Your task to perform on an android device: uninstall "LinkedIn" Image 0: 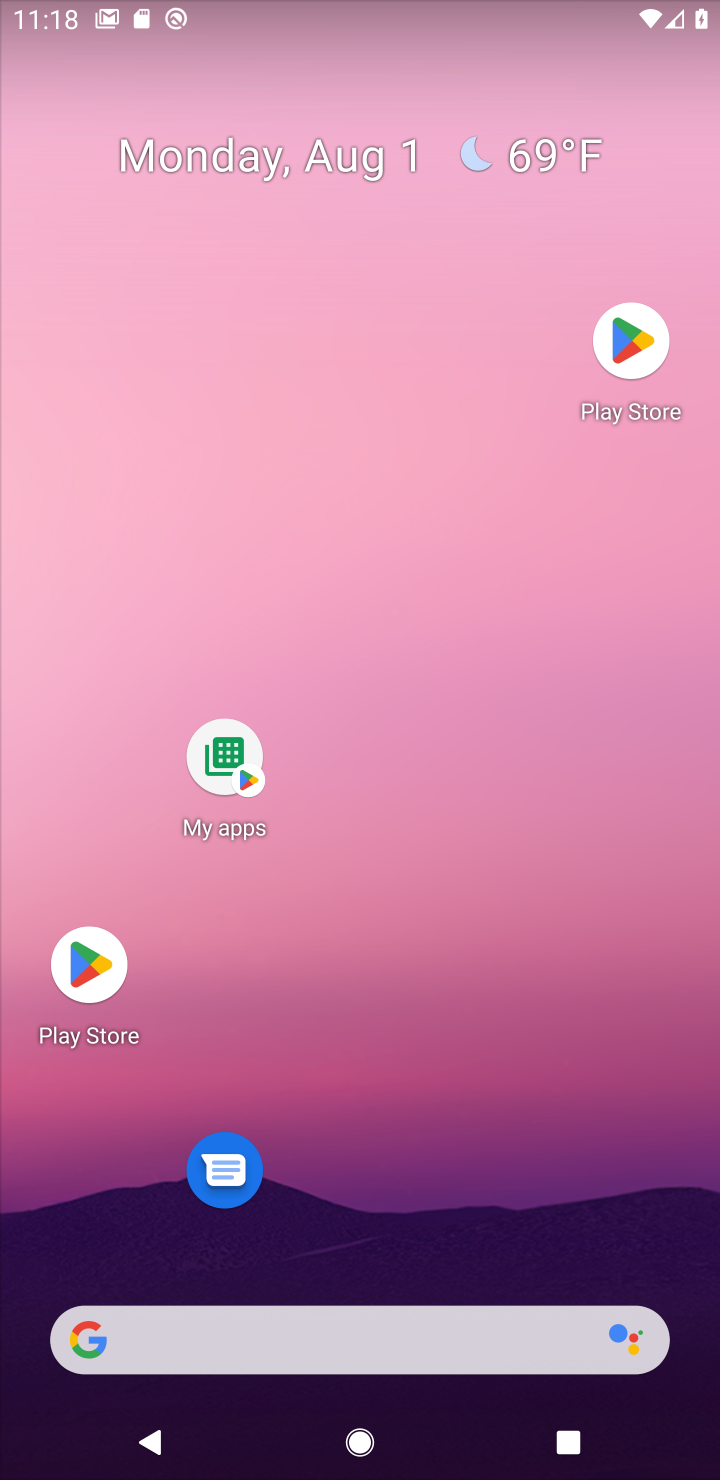
Step 0: drag from (418, 1373) to (445, 469)
Your task to perform on an android device: uninstall "LinkedIn" Image 1: 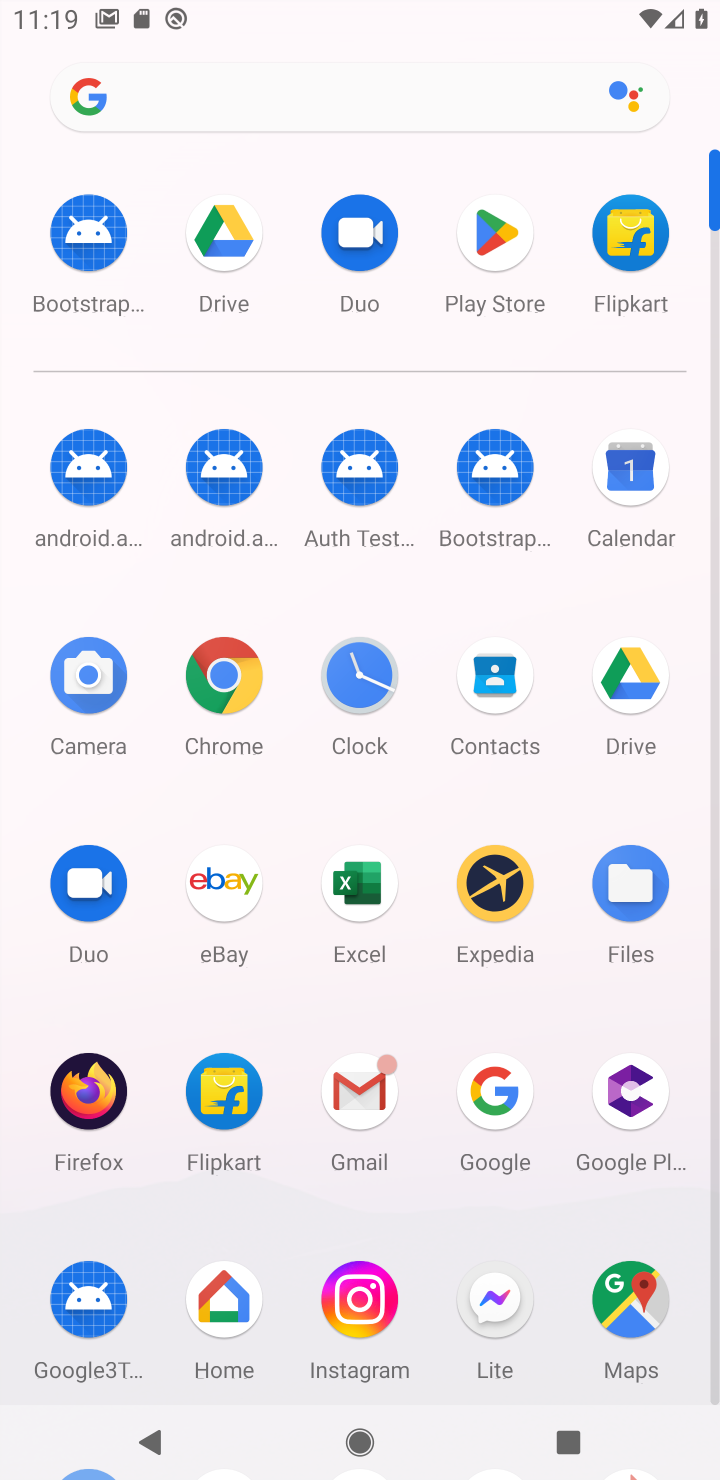
Step 1: click (493, 232)
Your task to perform on an android device: uninstall "LinkedIn" Image 2: 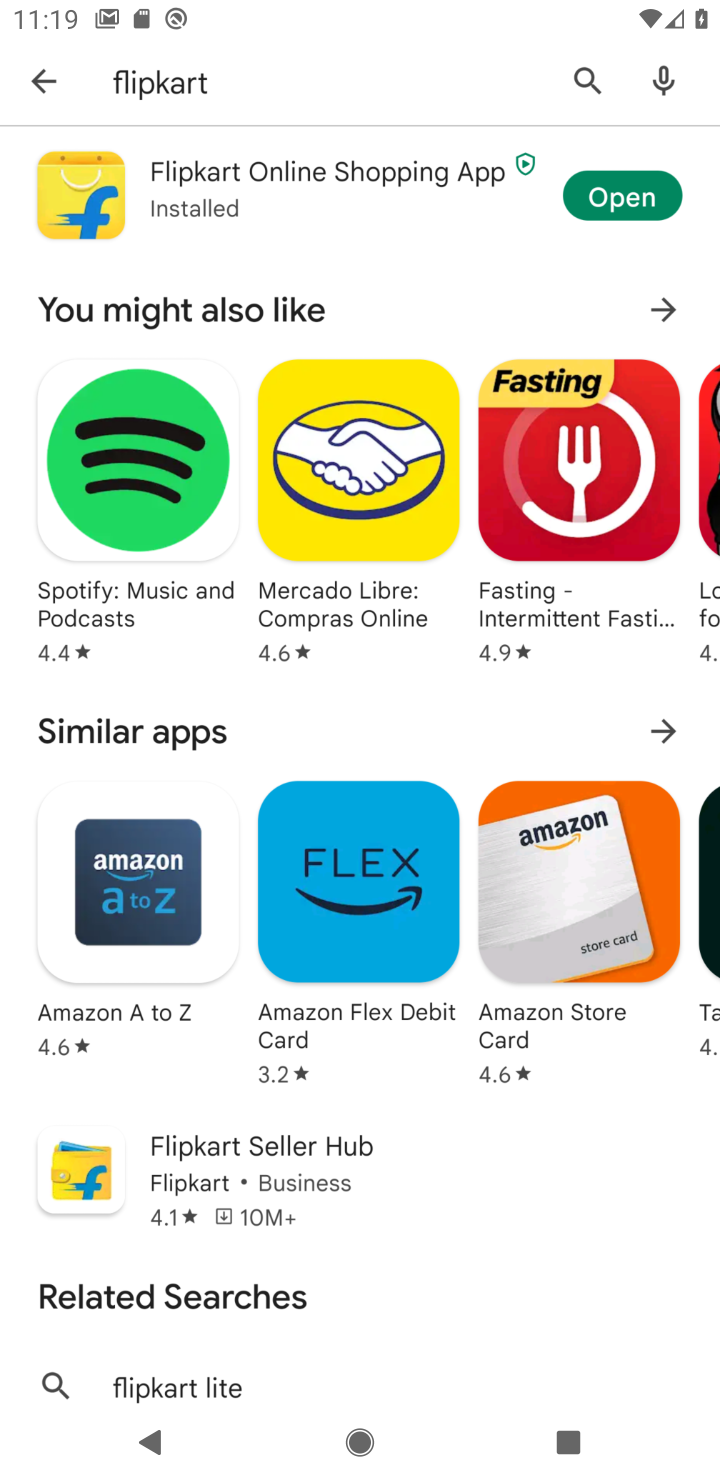
Step 2: click (528, 234)
Your task to perform on an android device: uninstall "LinkedIn" Image 3: 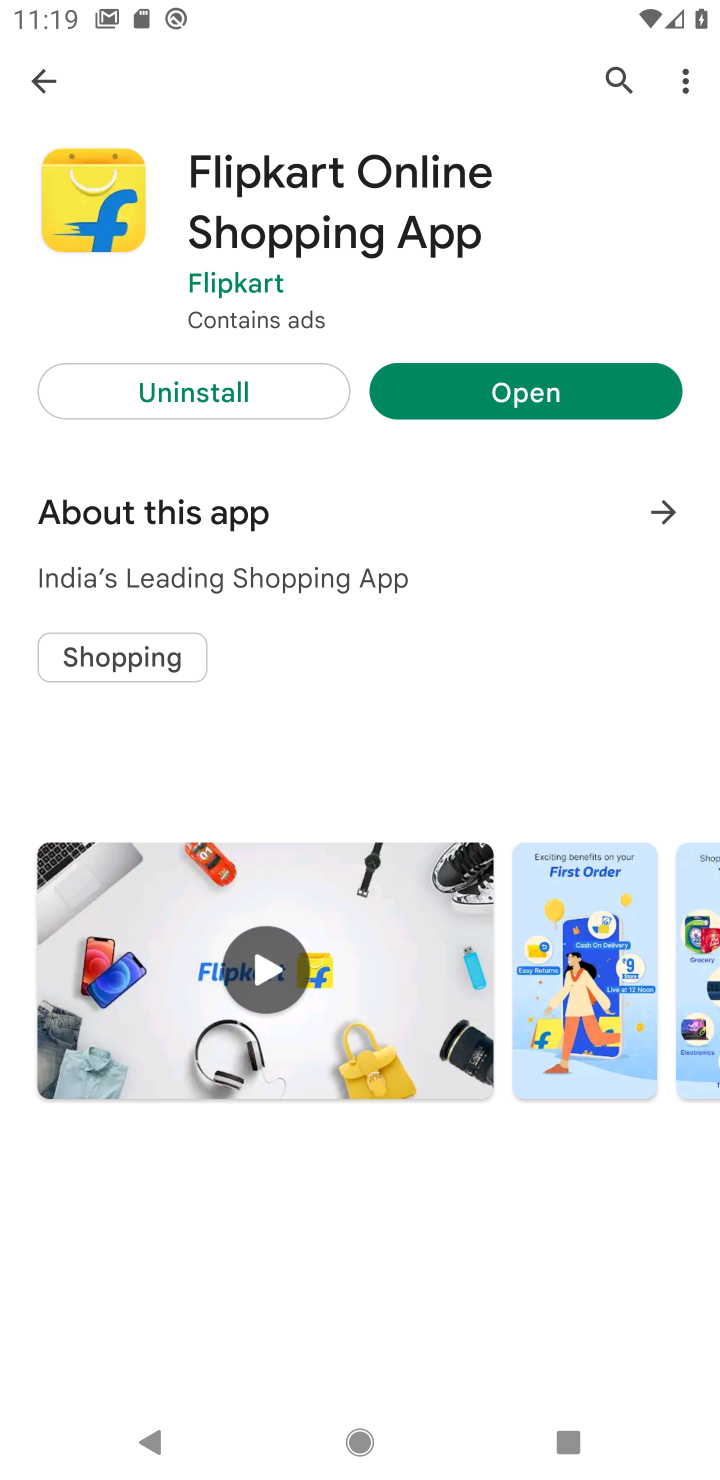
Step 3: click (500, 244)
Your task to perform on an android device: uninstall "LinkedIn" Image 4: 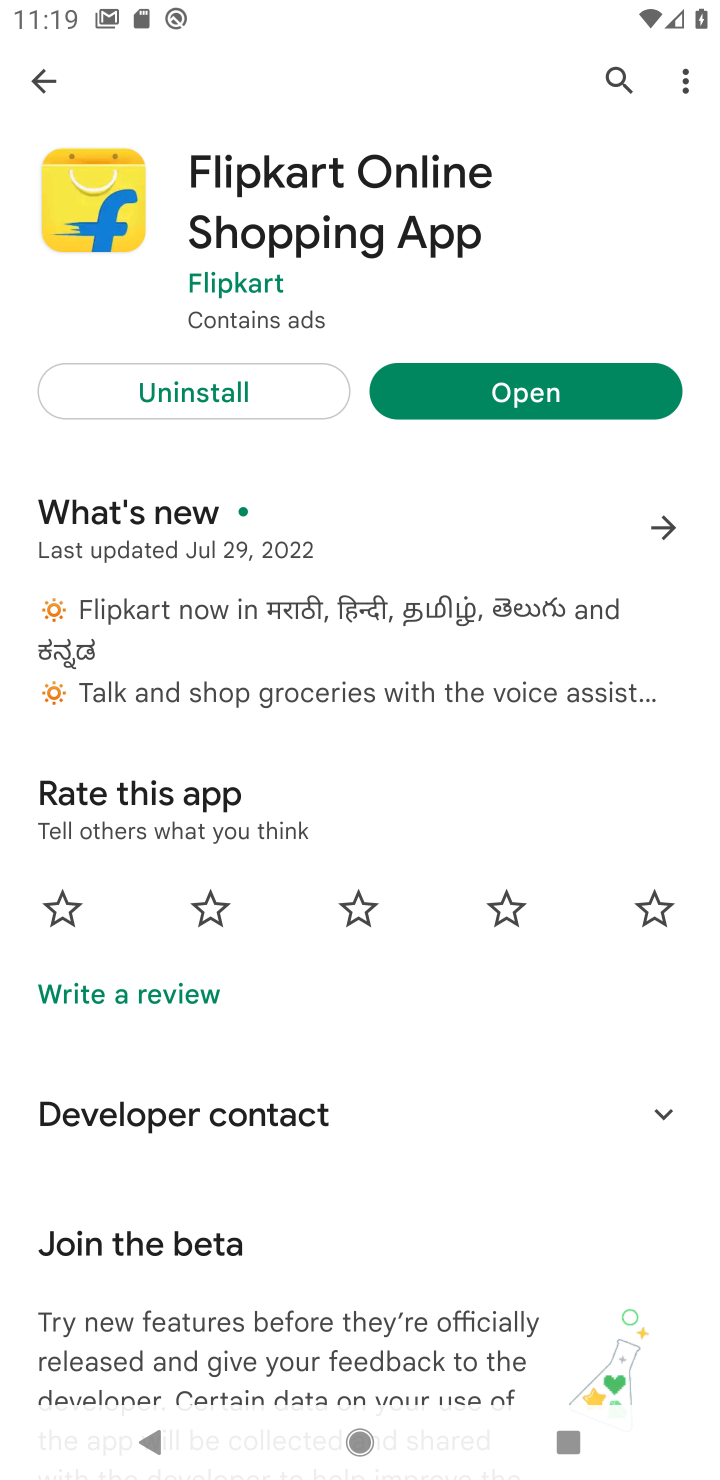
Step 4: click (486, 244)
Your task to perform on an android device: uninstall "LinkedIn" Image 5: 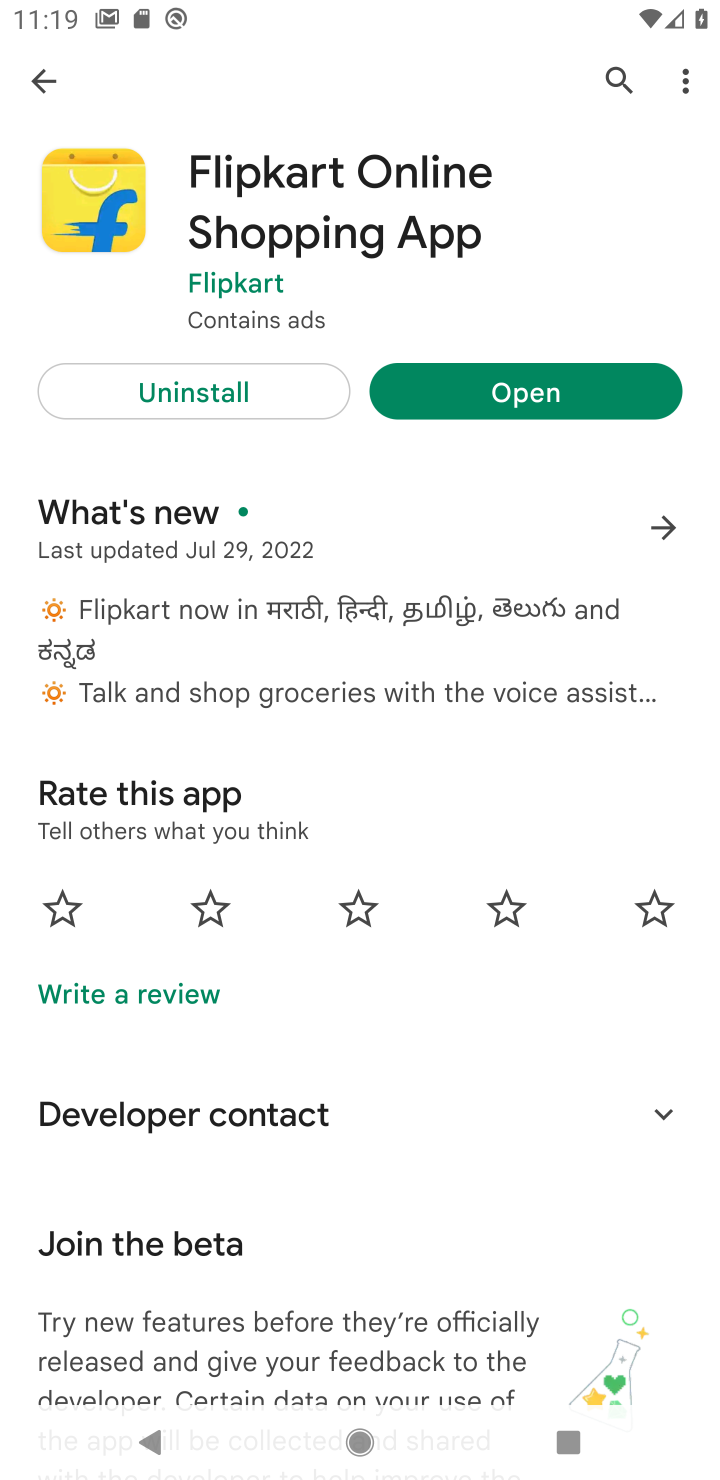
Step 5: click (58, 89)
Your task to perform on an android device: uninstall "LinkedIn" Image 6: 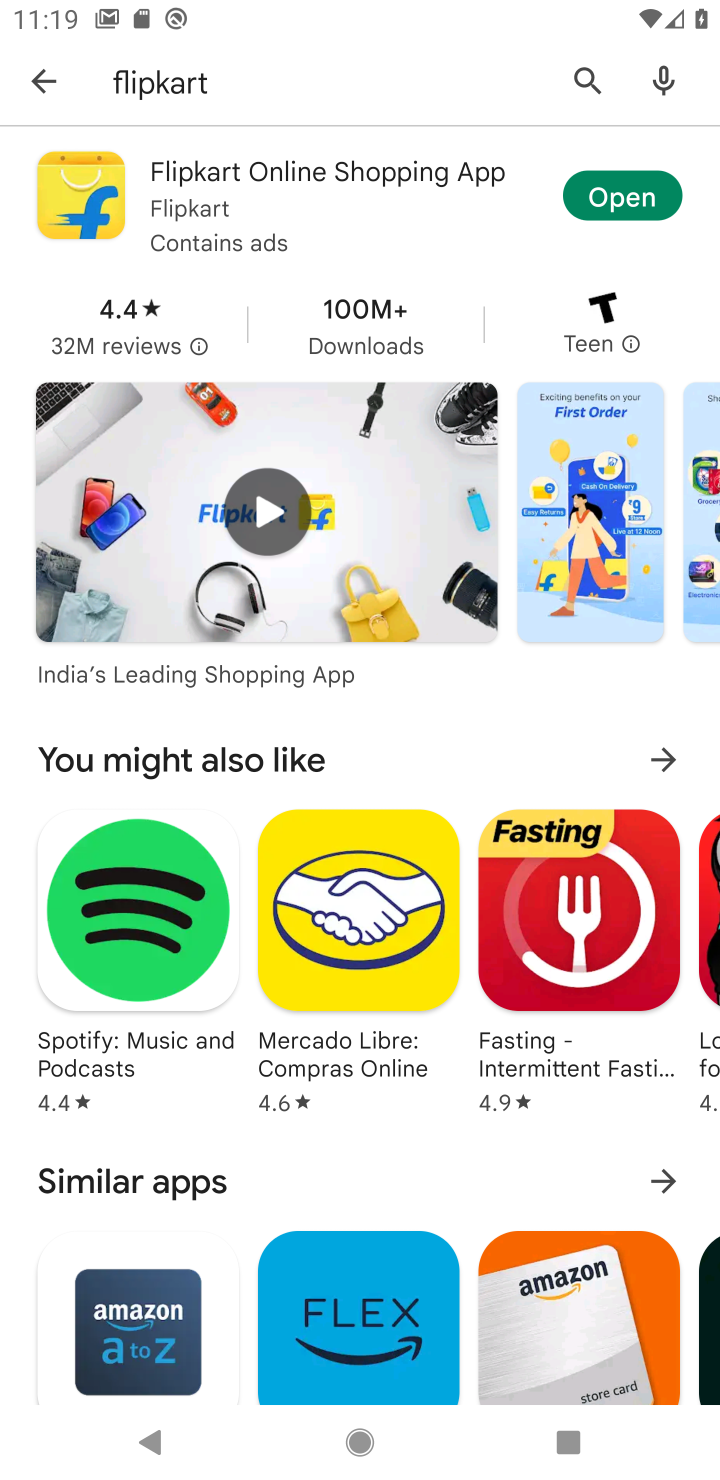
Step 6: click (580, 68)
Your task to perform on an android device: uninstall "LinkedIn" Image 7: 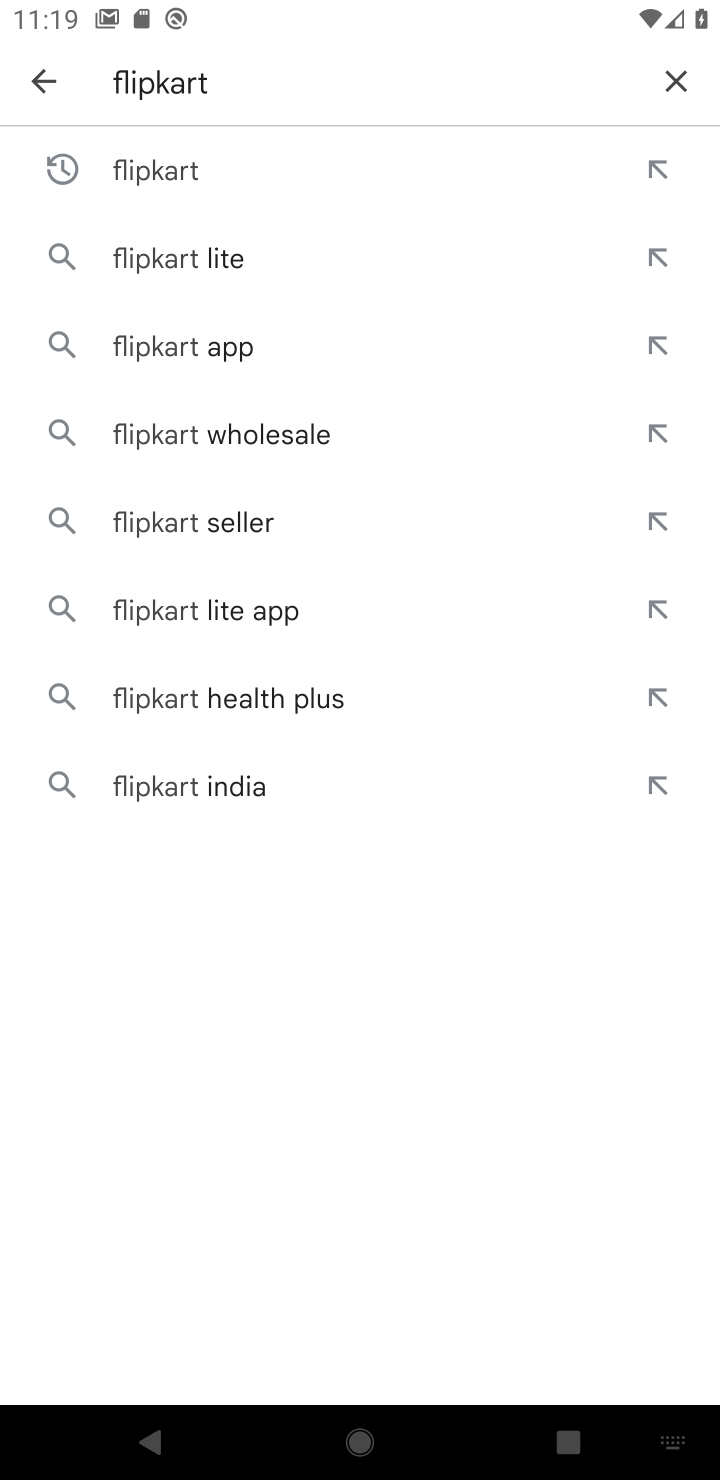
Step 7: click (664, 61)
Your task to perform on an android device: uninstall "LinkedIn" Image 8: 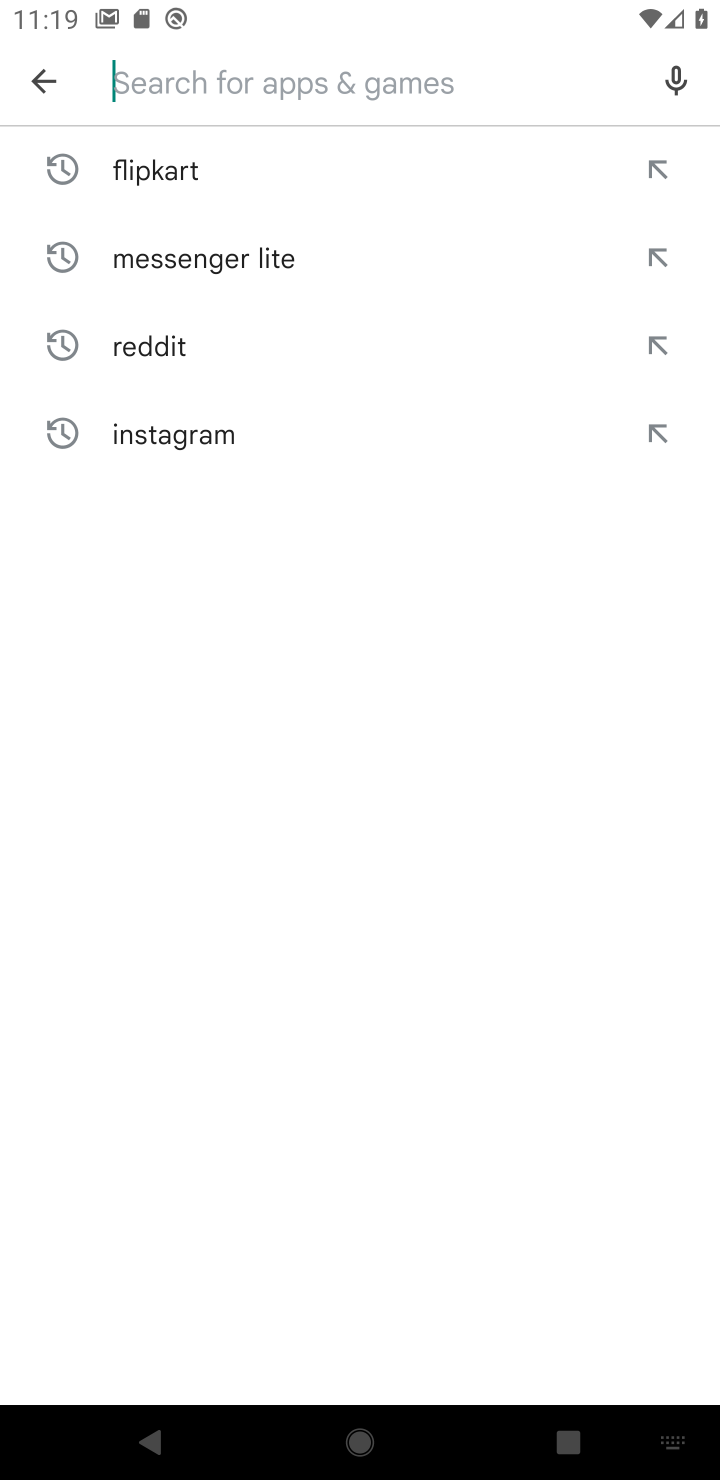
Step 8: type "Linkdin"
Your task to perform on an android device: uninstall "LinkedIn" Image 9: 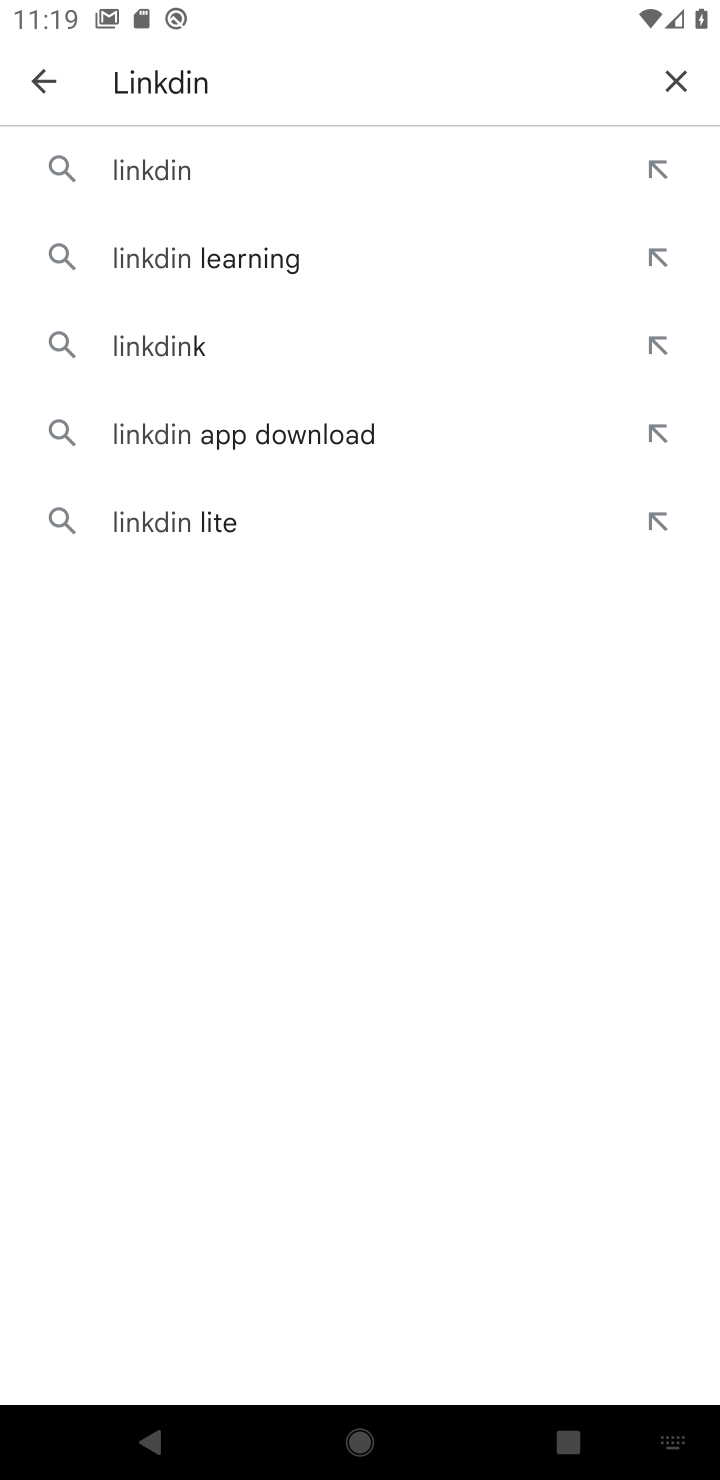
Step 9: click (167, 156)
Your task to perform on an android device: uninstall "LinkedIn" Image 10: 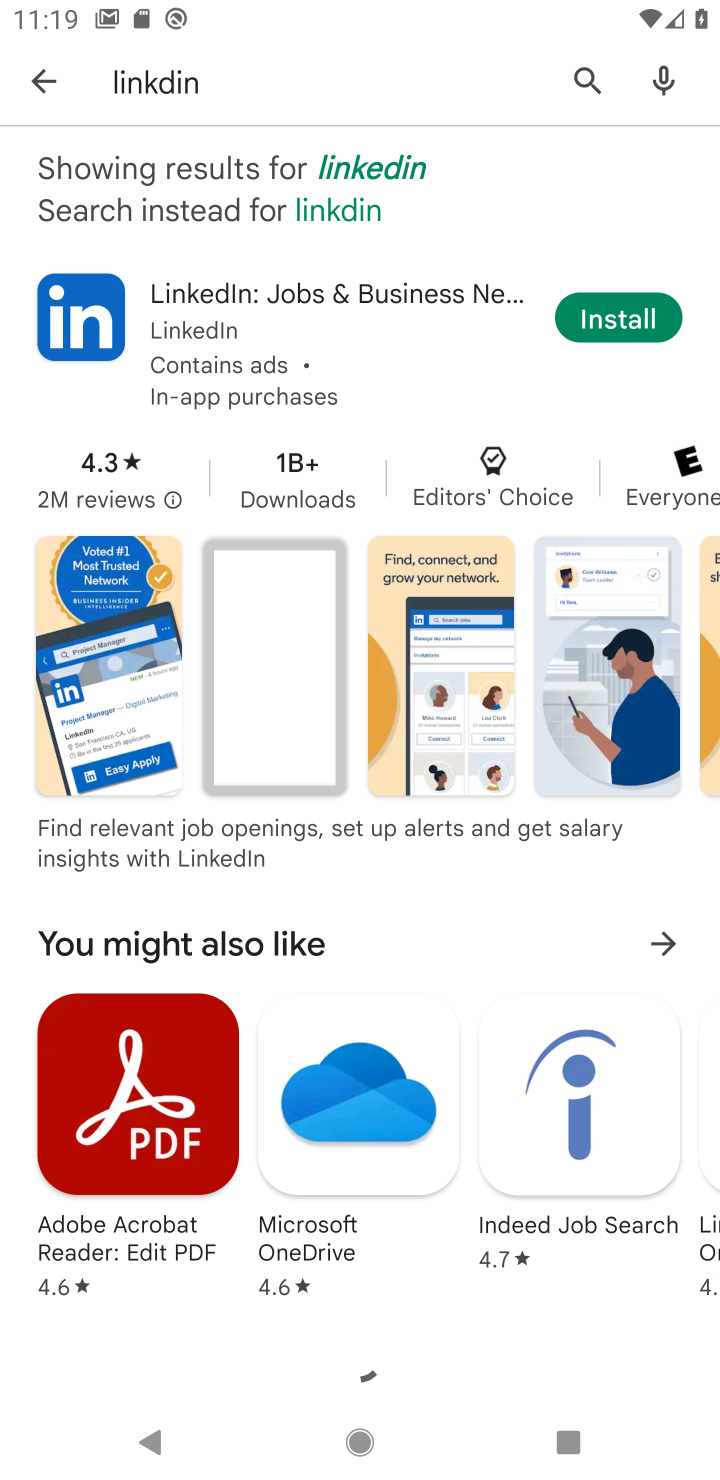
Step 10: click (615, 313)
Your task to perform on an android device: uninstall "LinkedIn" Image 11: 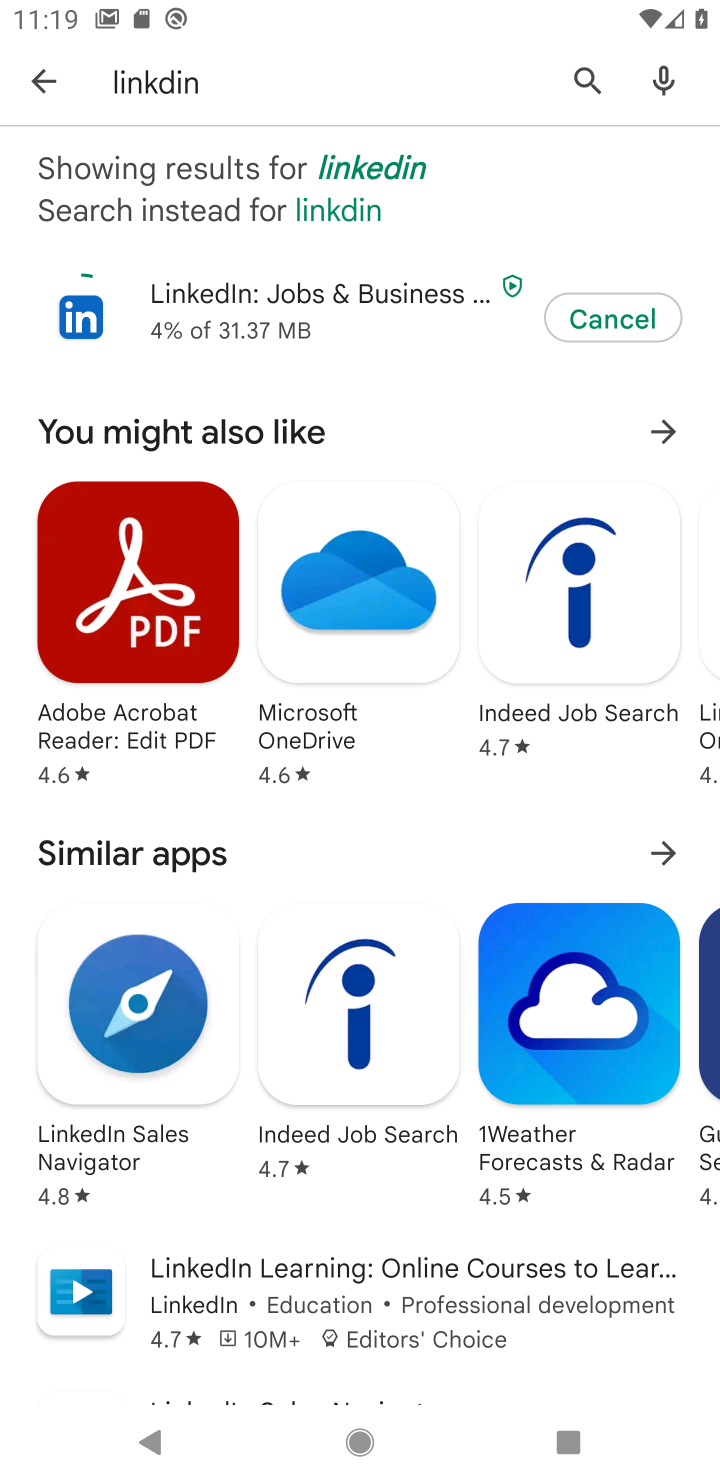
Step 11: click (598, 322)
Your task to perform on an android device: uninstall "LinkedIn" Image 12: 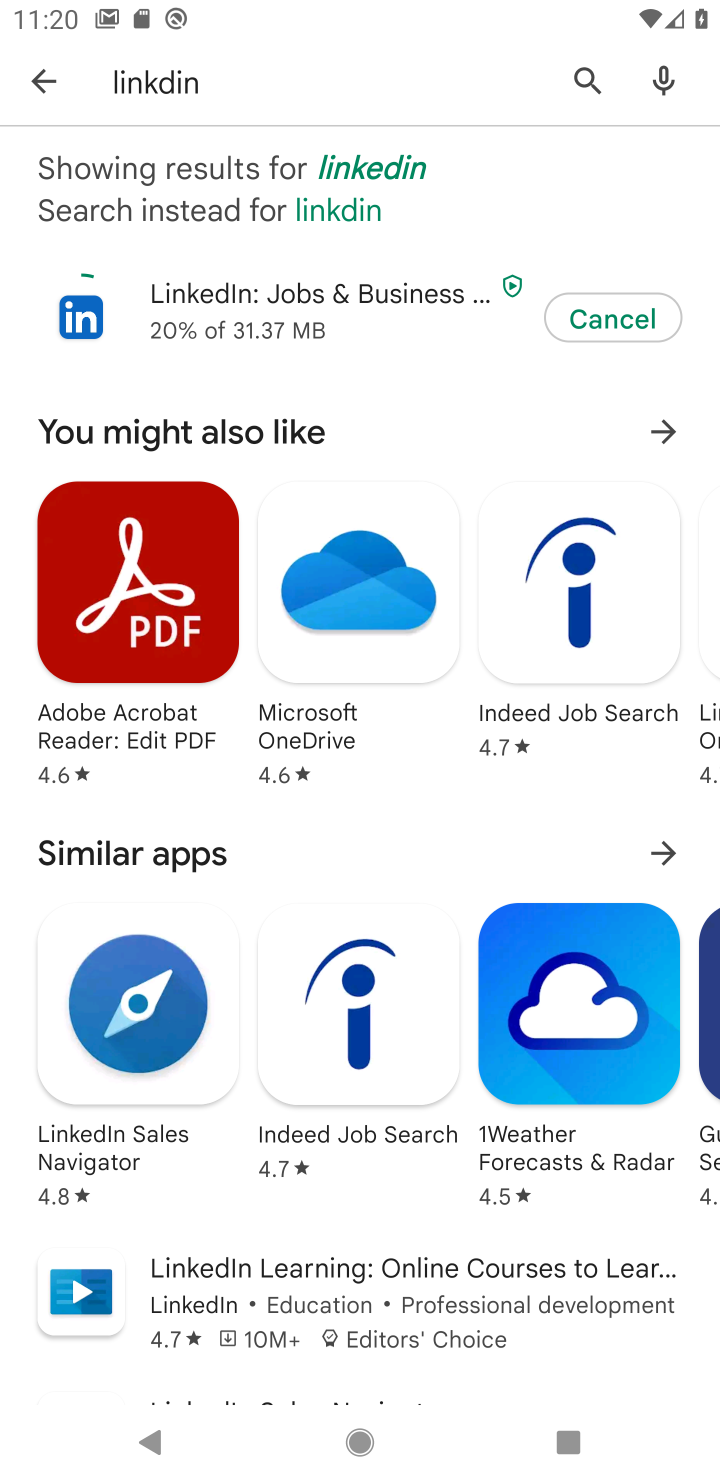
Step 12: click (598, 322)
Your task to perform on an android device: uninstall "LinkedIn" Image 13: 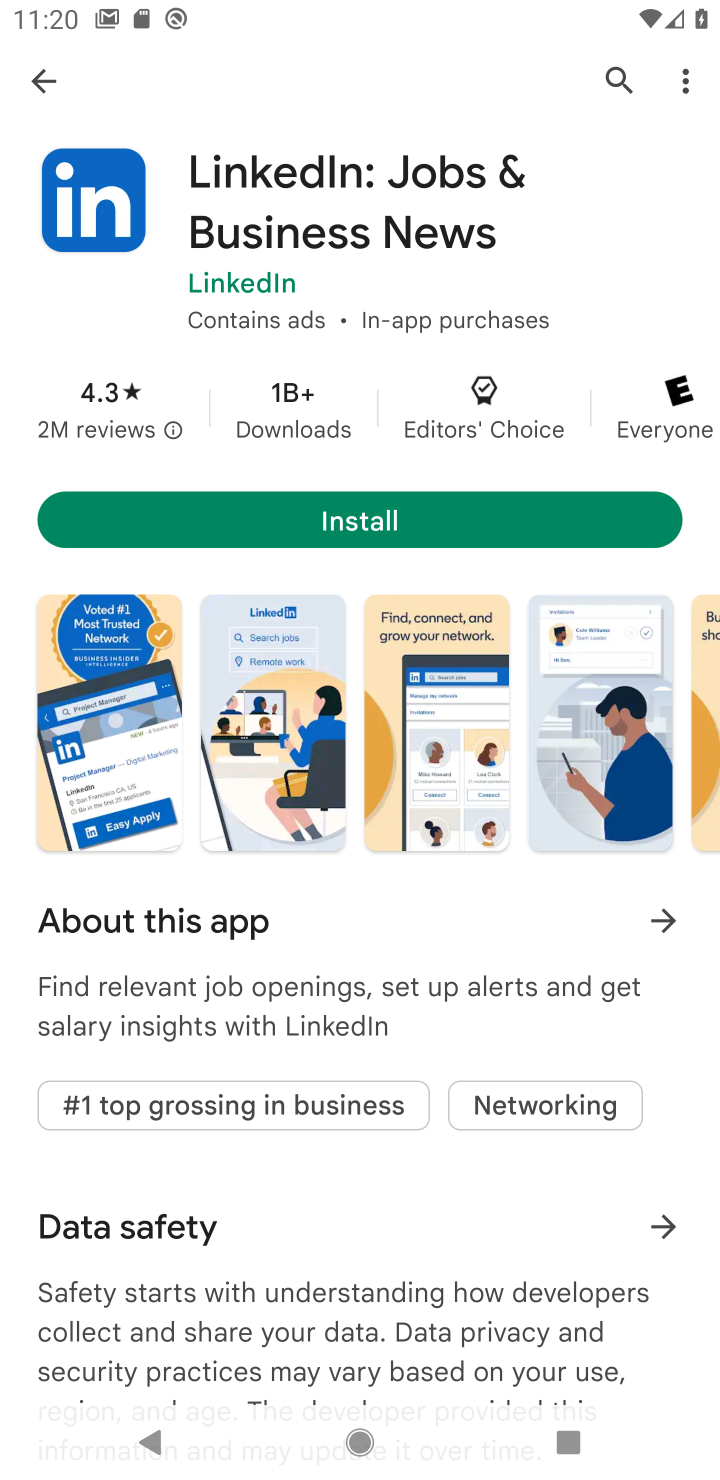
Step 13: task complete